Your task to perform on an android device: Go to location settings Image 0: 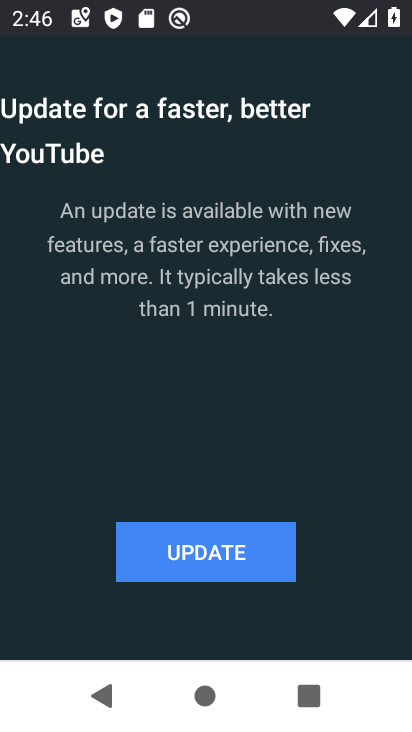
Step 0: press home button
Your task to perform on an android device: Go to location settings Image 1: 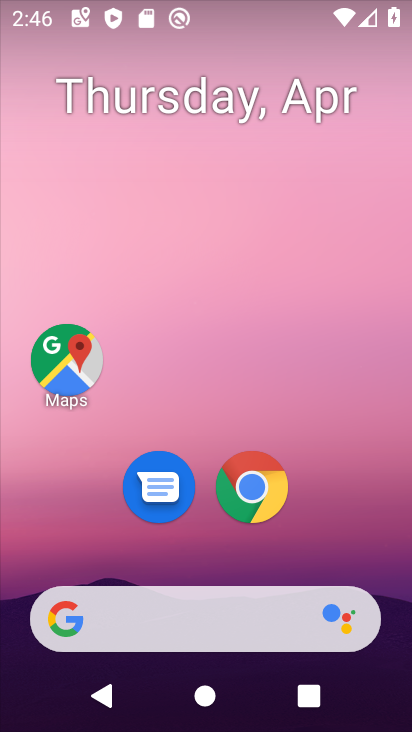
Step 1: drag from (255, 605) to (265, 257)
Your task to perform on an android device: Go to location settings Image 2: 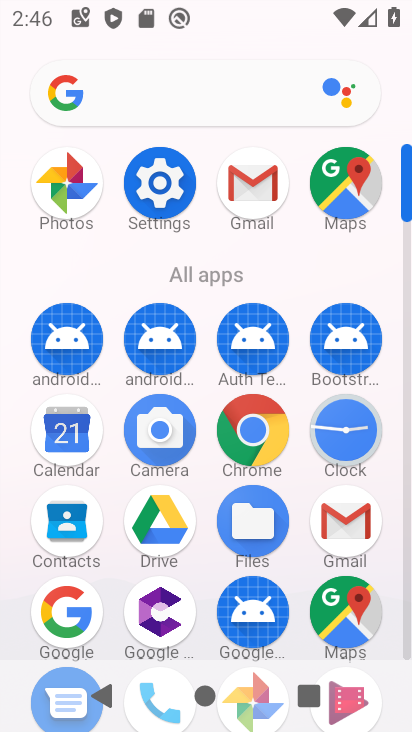
Step 2: click (148, 181)
Your task to perform on an android device: Go to location settings Image 3: 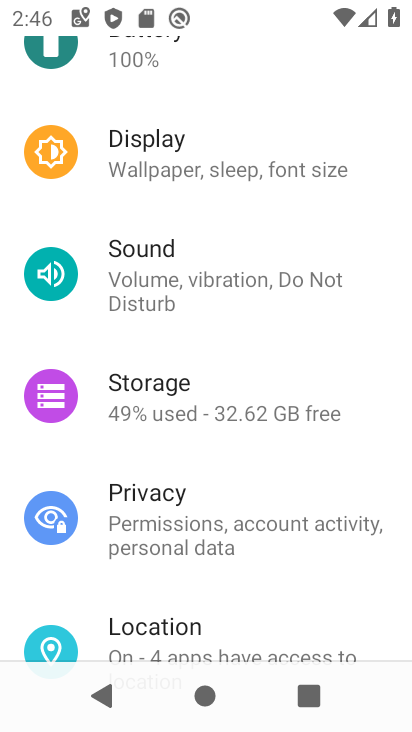
Step 3: drag from (178, 357) to (197, 171)
Your task to perform on an android device: Go to location settings Image 4: 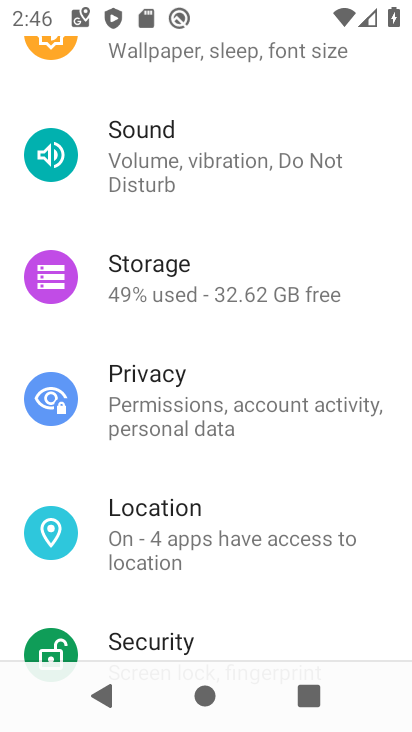
Step 4: click (221, 538)
Your task to perform on an android device: Go to location settings Image 5: 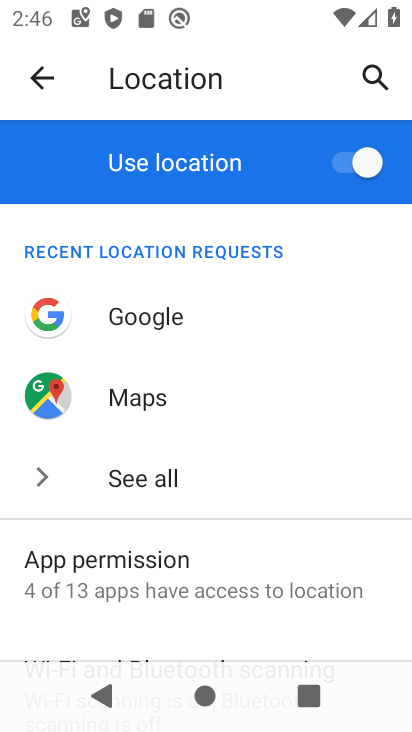
Step 5: task complete